Your task to perform on an android device: turn on the 24-hour format for clock Image 0: 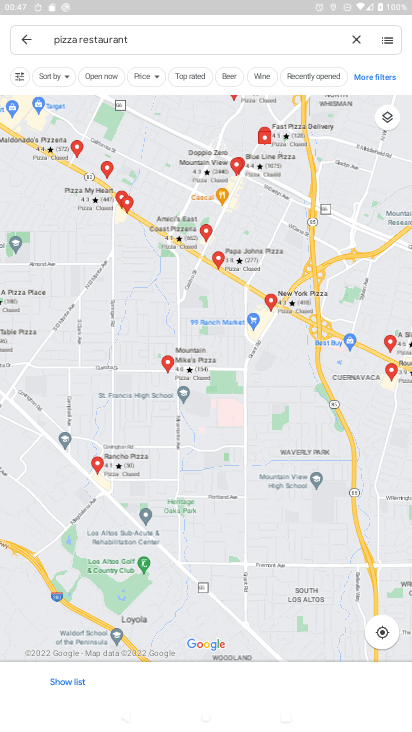
Step 0: click (234, 174)
Your task to perform on an android device: turn on the 24-hour format for clock Image 1: 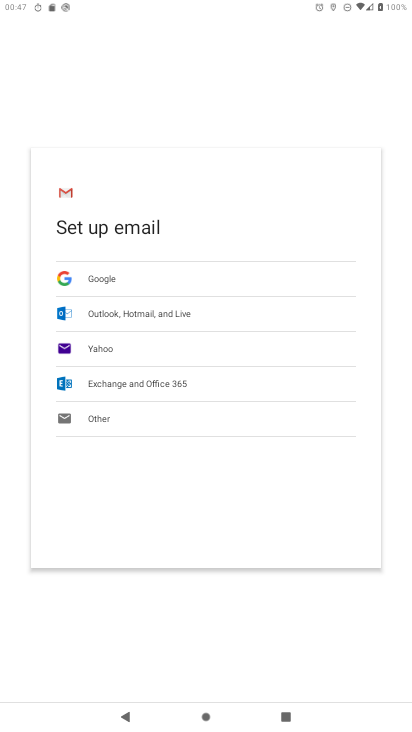
Step 1: drag from (194, 655) to (253, 192)
Your task to perform on an android device: turn on the 24-hour format for clock Image 2: 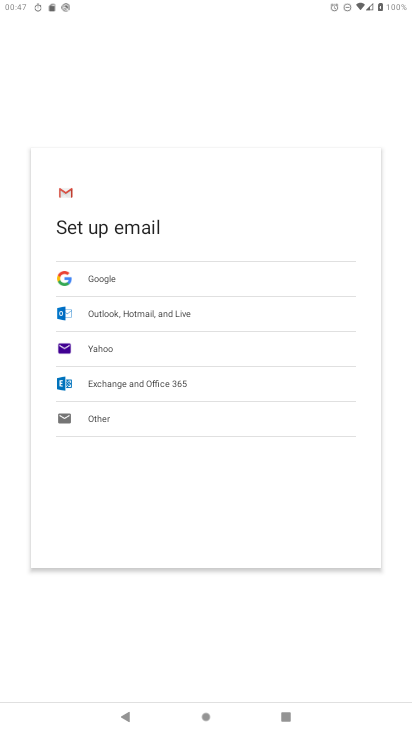
Step 2: press home button
Your task to perform on an android device: turn on the 24-hour format for clock Image 3: 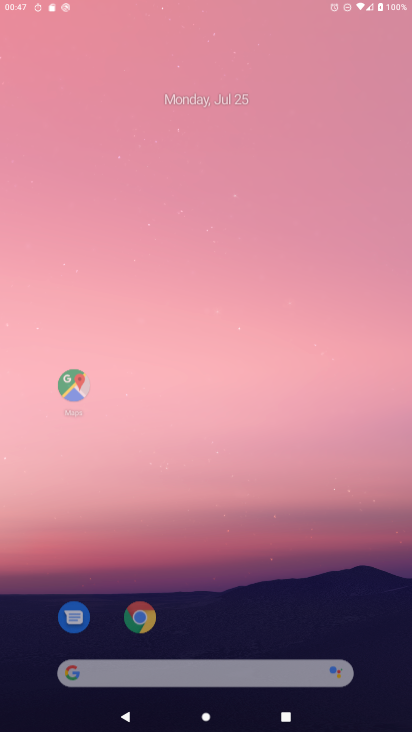
Step 3: drag from (190, 606) to (238, 213)
Your task to perform on an android device: turn on the 24-hour format for clock Image 4: 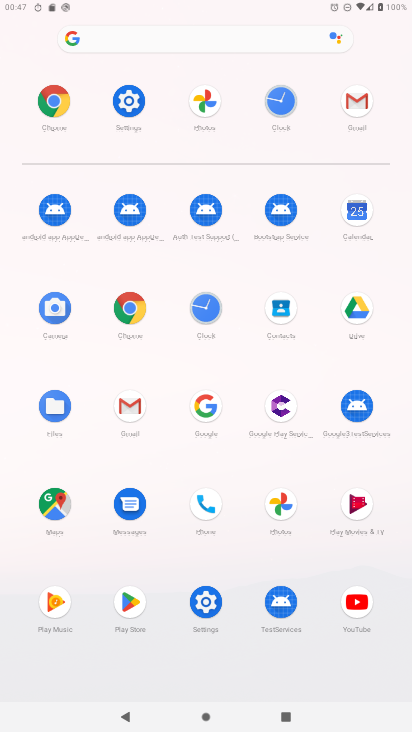
Step 4: drag from (244, 564) to (286, 135)
Your task to perform on an android device: turn on the 24-hour format for clock Image 5: 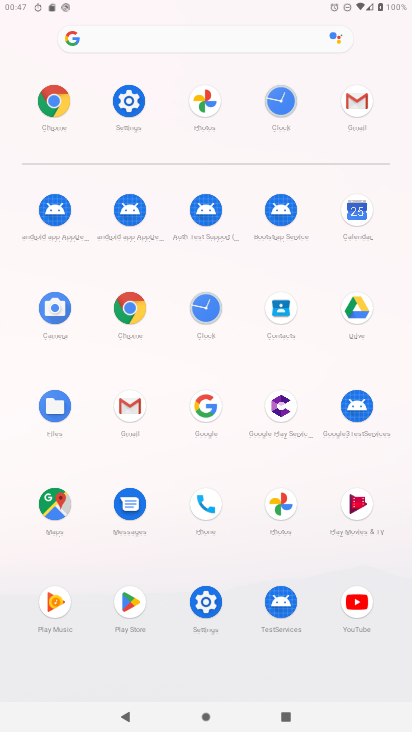
Step 5: click (204, 291)
Your task to perform on an android device: turn on the 24-hour format for clock Image 6: 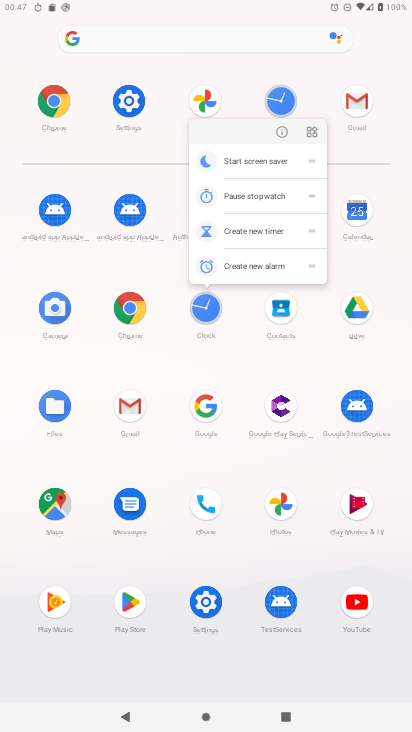
Step 6: click (280, 122)
Your task to perform on an android device: turn on the 24-hour format for clock Image 7: 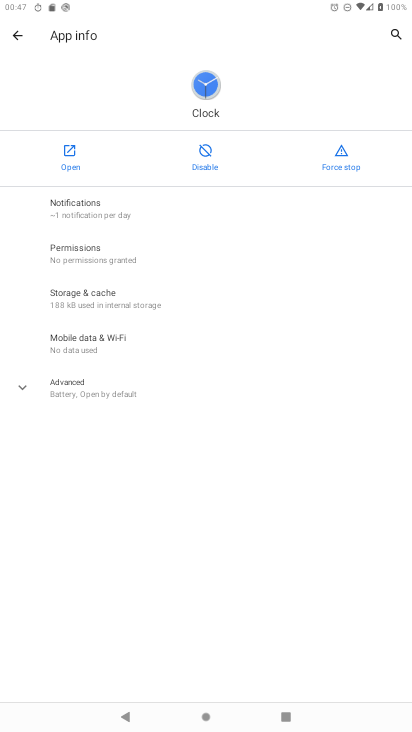
Step 7: click (64, 169)
Your task to perform on an android device: turn on the 24-hour format for clock Image 8: 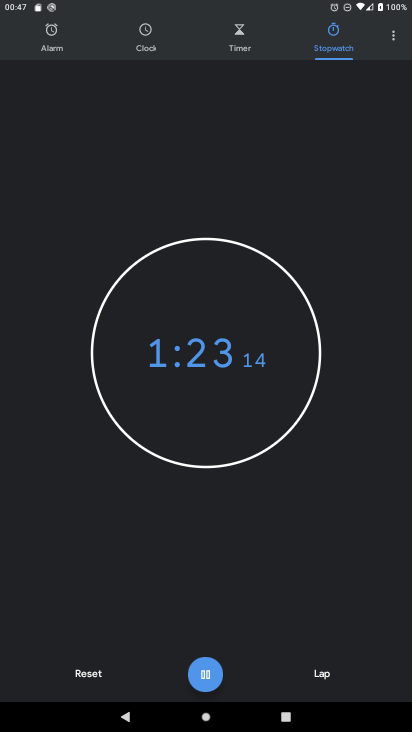
Step 8: drag from (236, 515) to (276, 184)
Your task to perform on an android device: turn on the 24-hour format for clock Image 9: 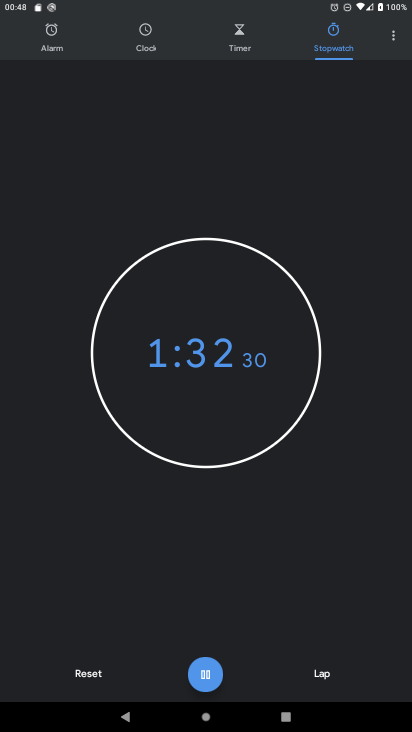
Step 9: click (101, 675)
Your task to perform on an android device: turn on the 24-hour format for clock Image 10: 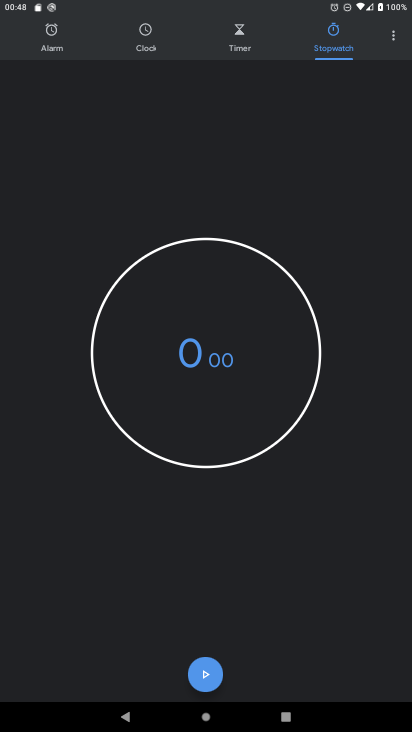
Step 10: click (398, 40)
Your task to perform on an android device: turn on the 24-hour format for clock Image 11: 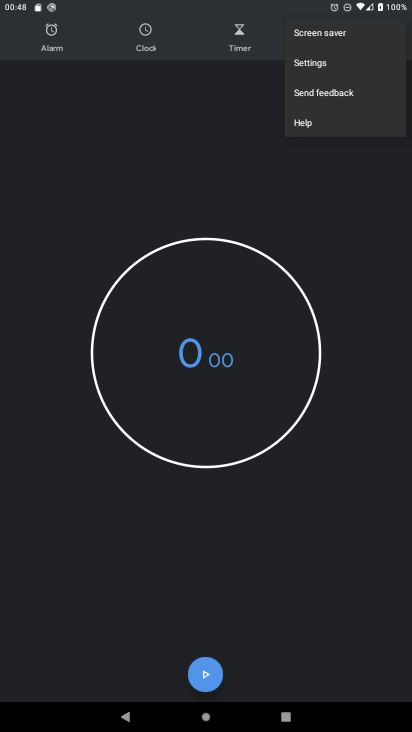
Step 11: drag from (398, 40) to (329, 66)
Your task to perform on an android device: turn on the 24-hour format for clock Image 12: 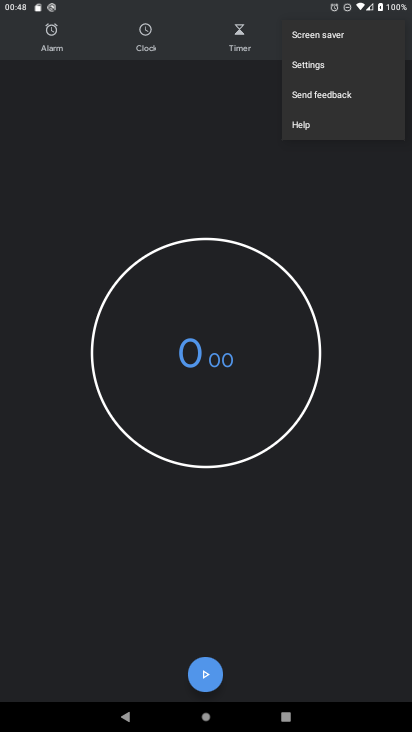
Step 12: click (323, 64)
Your task to perform on an android device: turn on the 24-hour format for clock Image 13: 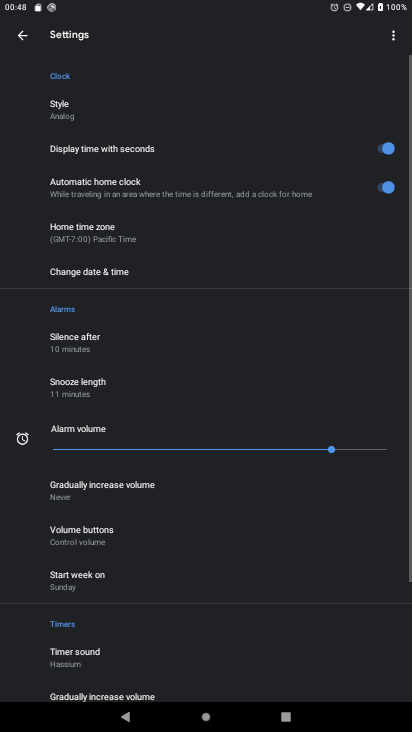
Step 13: click (101, 278)
Your task to perform on an android device: turn on the 24-hour format for clock Image 14: 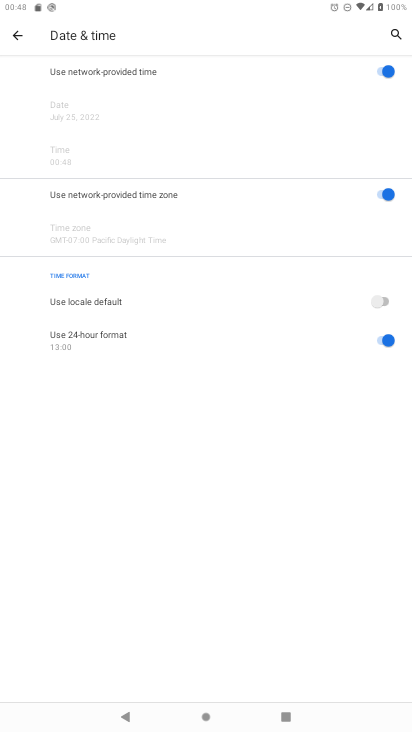
Step 14: task complete